Your task to perform on an android device: Search for "asus rog" on target, select the first entry, and add it to the cart. Image 0: 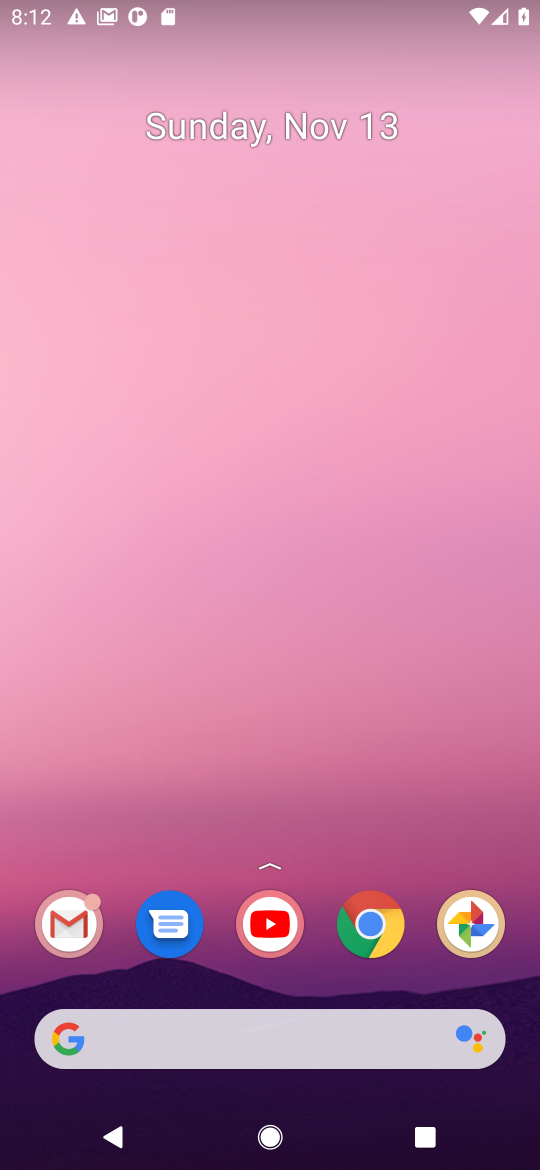
Step 0: click (365, 945)
Your task to perform on an android device: Search for "asus rog" on target, select the first entry, and add it to the cart. Image 1: 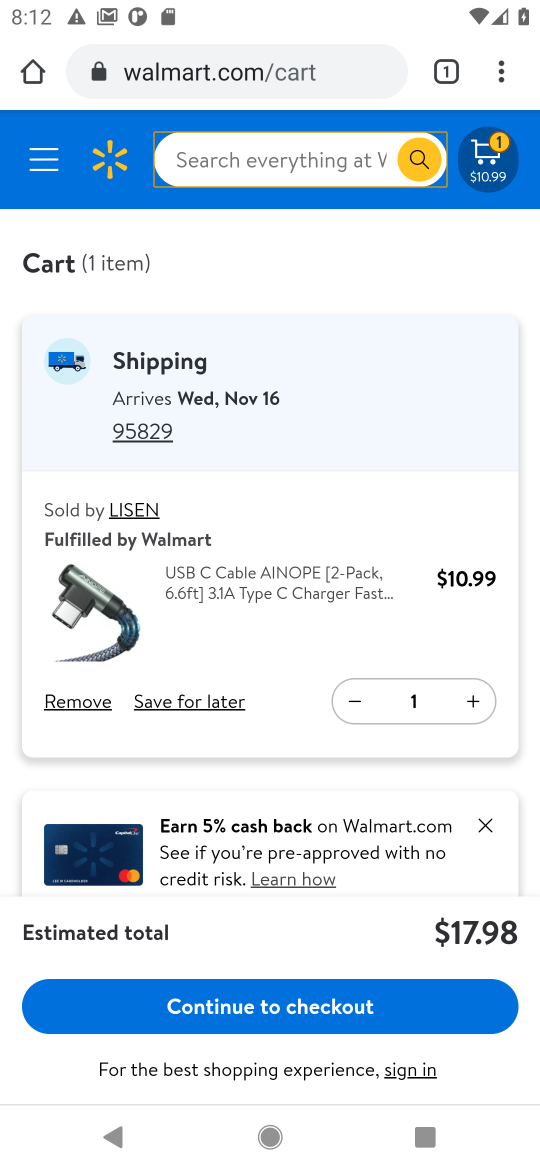
Step 1: click (209, 83)
Your task to perform on an android device: Search for "asus rog" on target, select the first entry, and add it to the cart. Image 2: 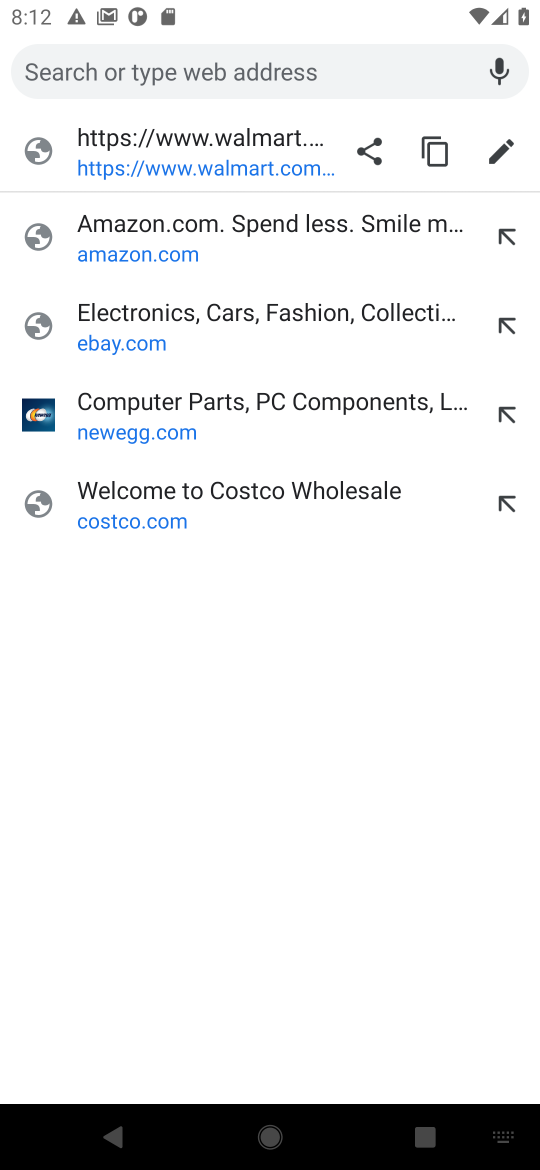
Step 2: type "target.com"
Your task to perform on an android device: Search for "asus rog" on target, select the first entry, and add it to the cart. Image 3: 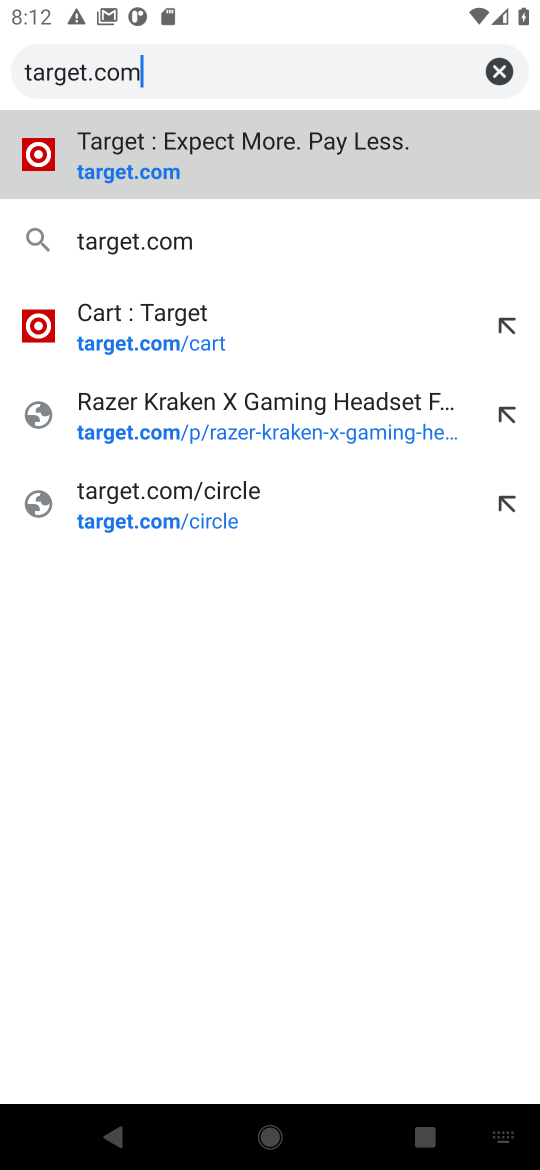
Step 3: click (122, 181)
Your task to perform on an android device: Search for "asus rog" on target, select the first entry, and add it to the cart. Image 4: 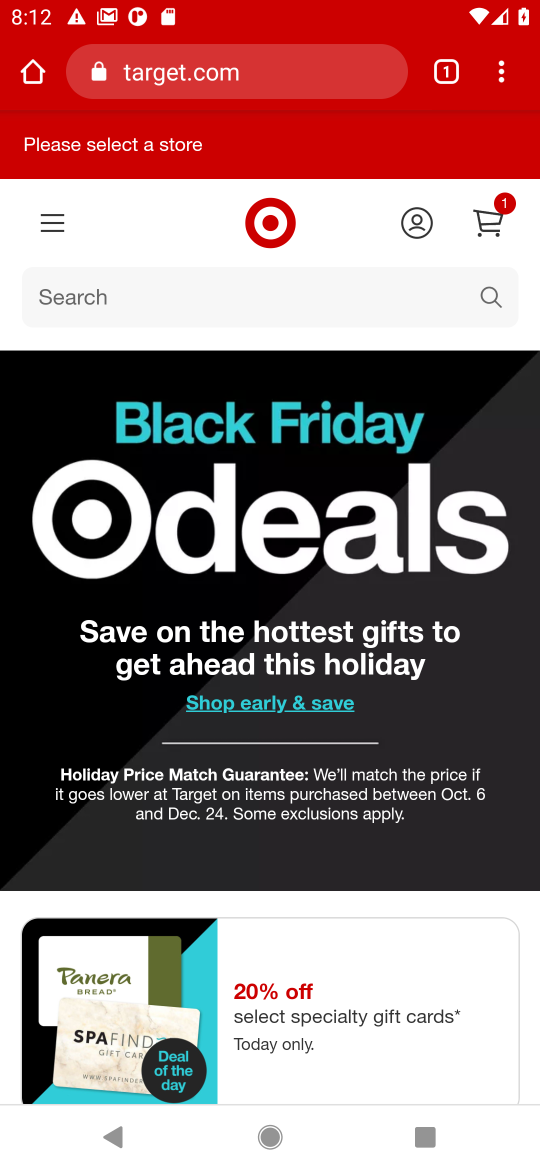
Step 4: click (479, 298)
Your task to perform on an android device: Search for "asus rog" on target, select the first entry, and add it to the cart. Image 5: 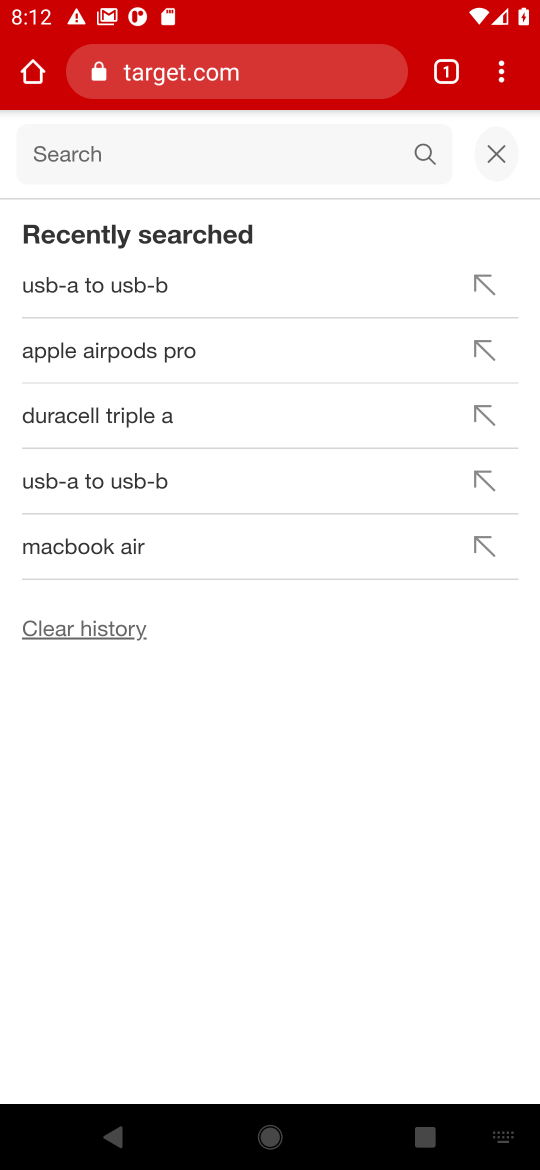
Step 5: type "asus rog"
Your task to perform on an android device: Search for "asus rog" on target, select the first entry, and add it to the cart. Image 6: 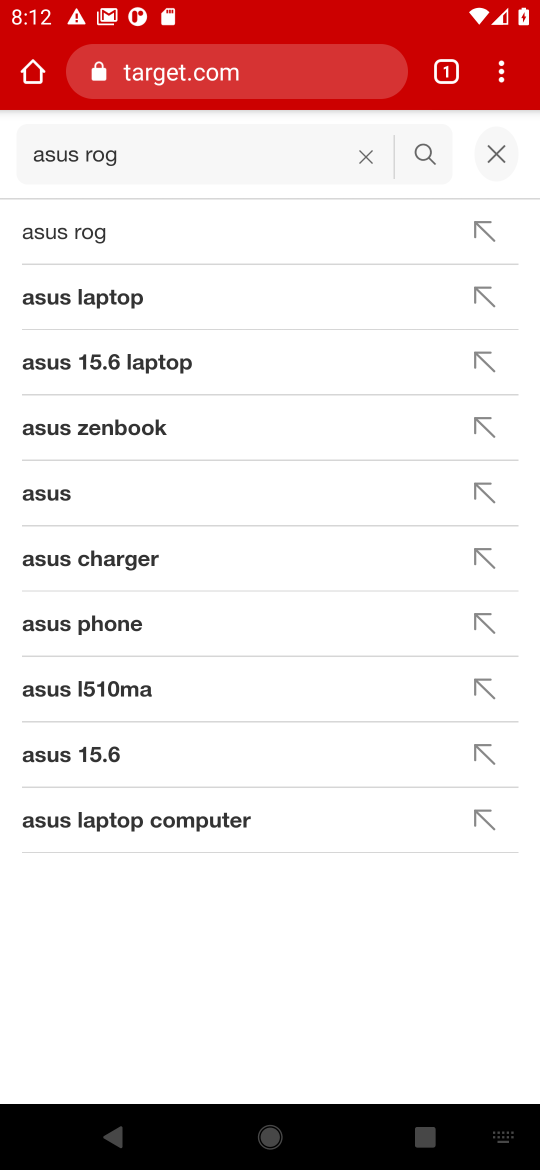
Step 6: click (66, 243)
Your task to perform on an android device: Search for "asus rog" on target, select the first entry, and add it to the cart. Image 7: 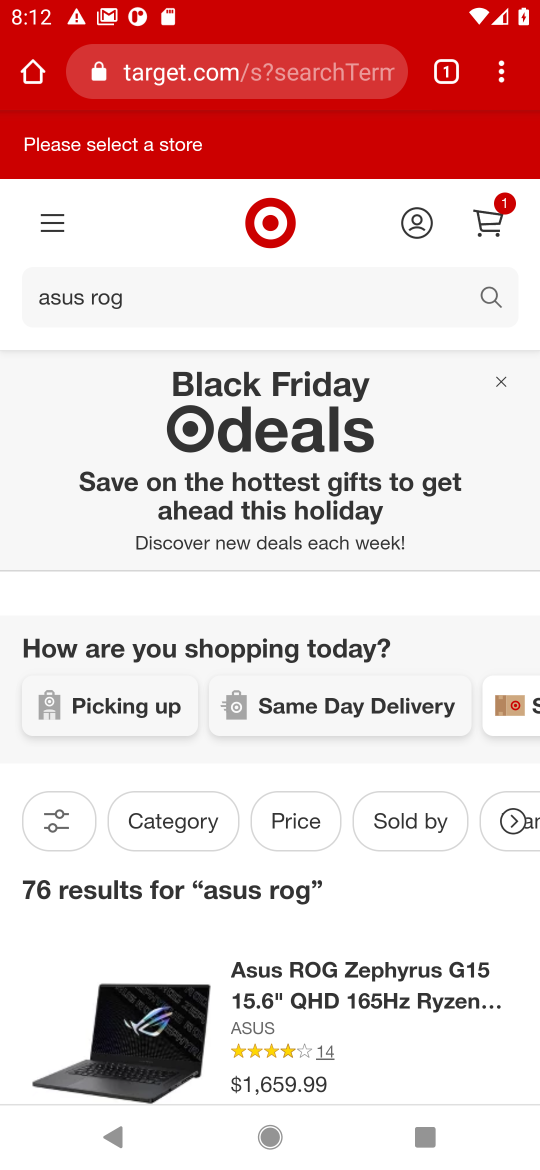
Step 7: drag from (184, 879) to (193, 558)
Your task to perform on an android device: Search for "asus rog" on target, select the first entry, and add it to the cart. Image 8: 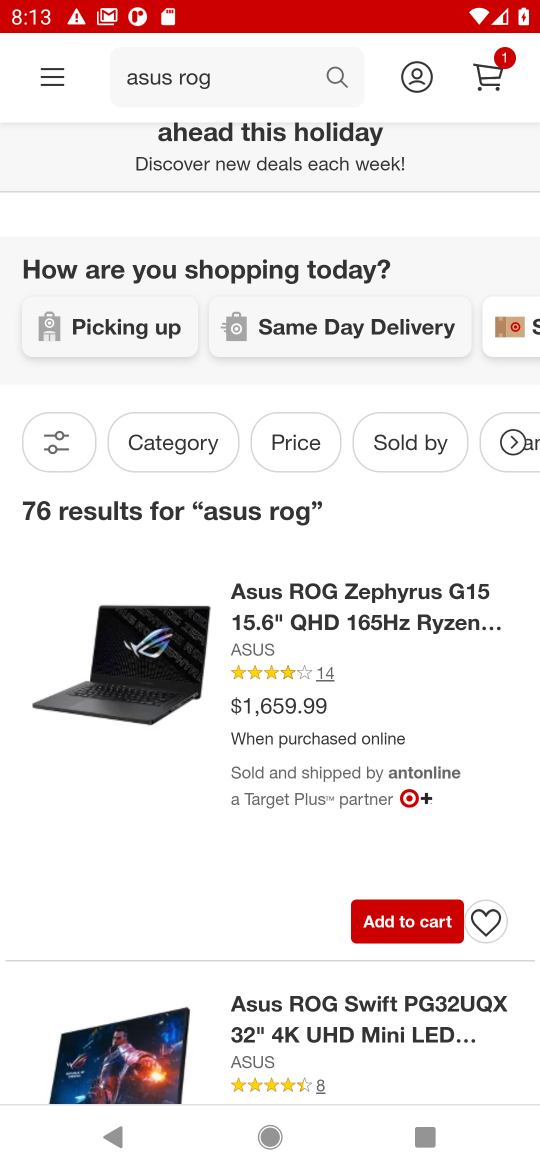
Step 8: click (430, 928)
Your task to perform on an android device: Search for "asus rog" on target, select the first entry, and add it to the cart. Image 9: 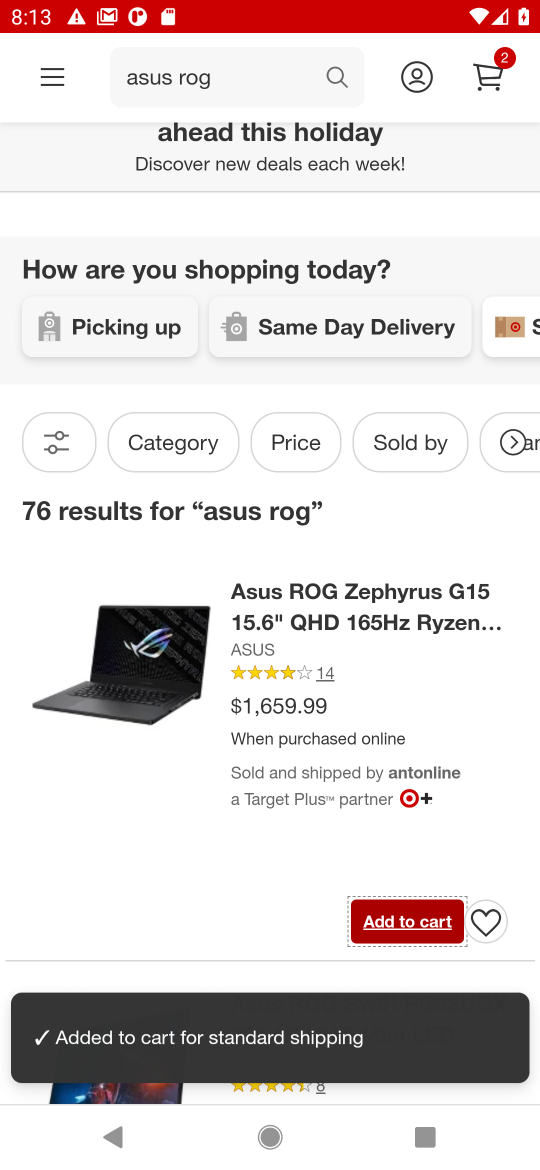
Step 9: task complete